Your task to perform on an android device: open wifi settings Image 0: 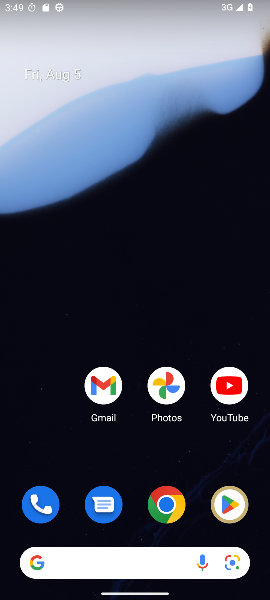
Step 0: drag from (66, 446) to (144, 39)
Your task to perform on an android device: open wifi settings Image 1: 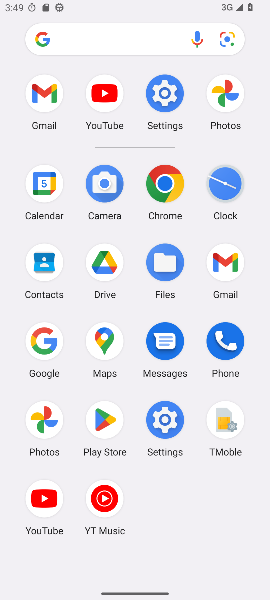
Step 1: click (156, 415)
Your task to perform on an android device: open wifi settings Image 2: 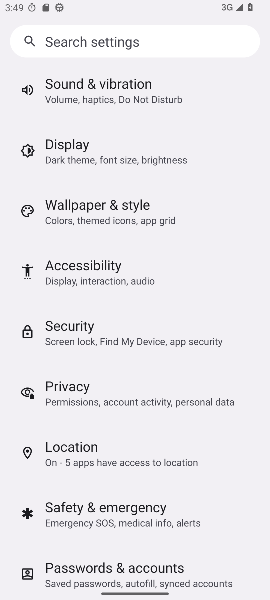
Step 2: drag from (131, 129) to (134, 456)
Your task to perform on an android device: open wifi settings Image 3: 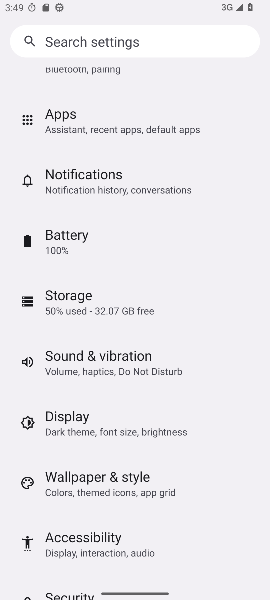
Step 3: drag from (102, 102) to (115, 385)
Your task to perform on an android device: open wifi settings Image 4: 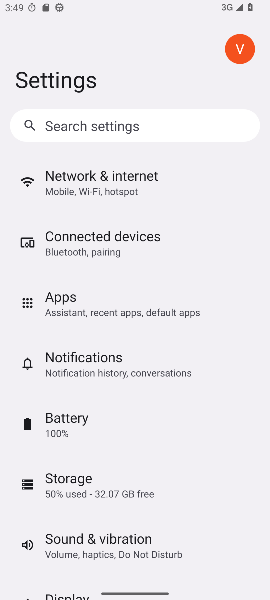
Step 4: click (90, 165)
Your task to perform on an android device: open wifi settings Image 5: 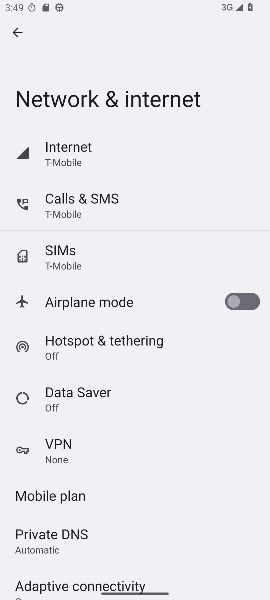
Step 5: click (67, 145)
Your task to perform on an android device: open wifi settings Image 6: 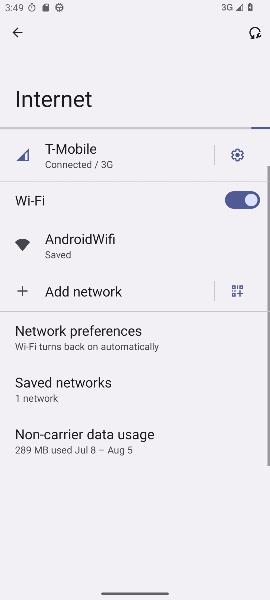
Step 6: task complete